Your task to perform on an android device: Open my contact list Image 0: 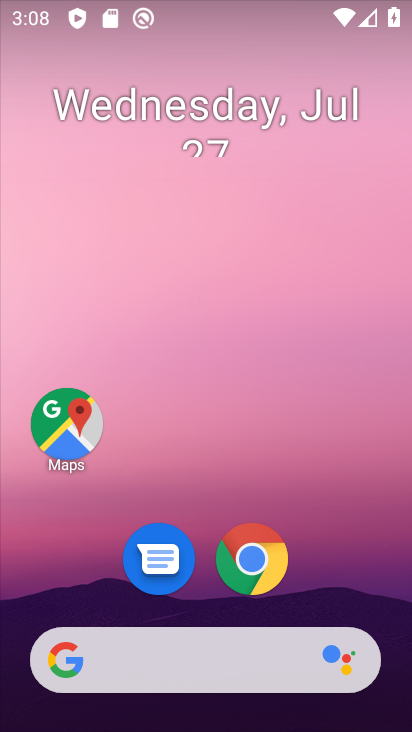
Step 0: drag from (88, 586) to (236, 20)
Your task to perform on an android device: Open my contact list Image 1: 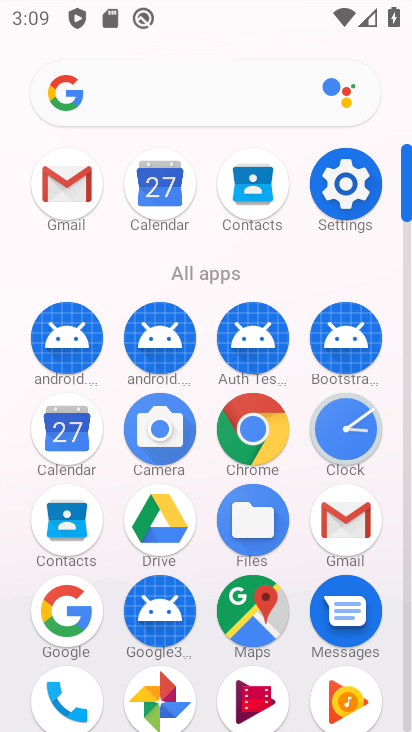
Step 1: click (256, 194)
Your task to perform on an android device: Open my contact list Image 2: 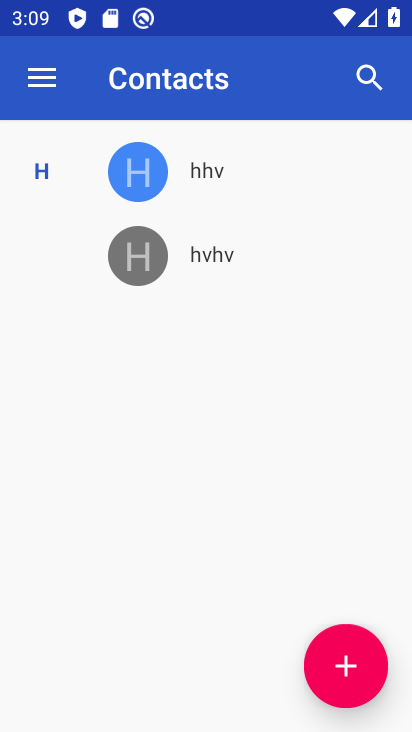
Step 2: task complete